Your task to perform on an android device: Go to location settings Image 0: 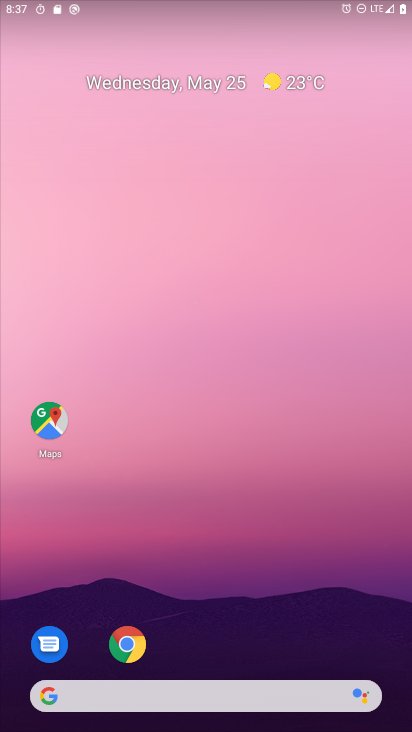
Step 0: drag from (358, 641) to (263, 131)
Your task to perform on an android device: Go to location settings Image 1: 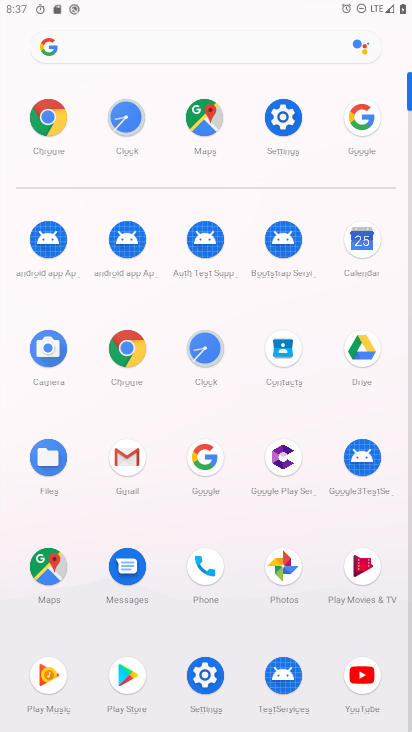
Step 1: click (216, 658)
Your task to perform on an android device: Go to location settings Image 2: 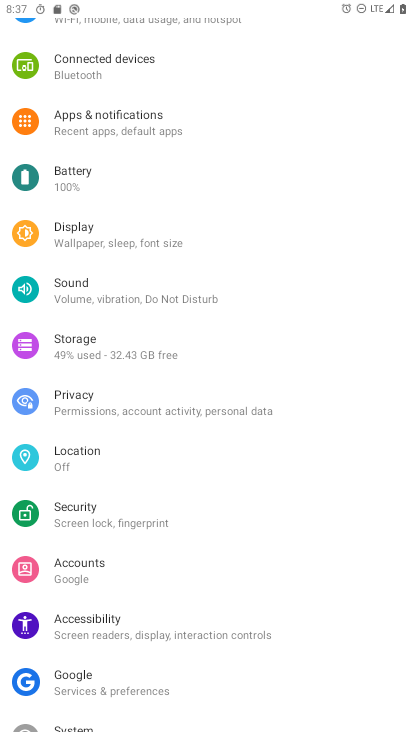
Step 2: click (95, 467)
Your task to perform on an android device: Go to location settings Image 3: 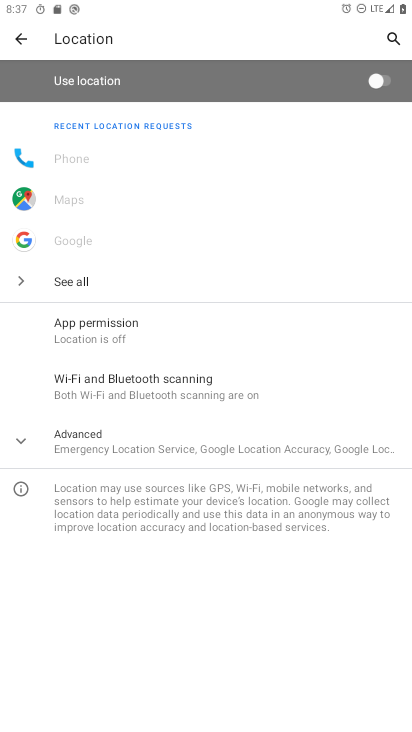
Step 3: task complete